Your task to perform on an android device: turn on the 24-hour format for clock Image 0: 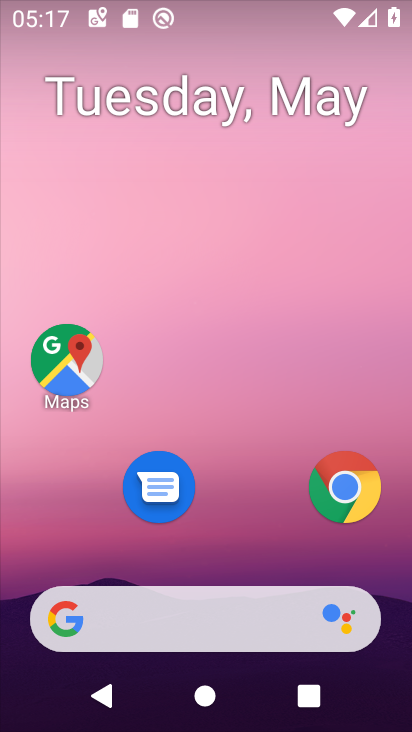
Step 0: drag from (280, 568) to (232, 49)
Your task to perform on an android device: turn on the 24-hour format for clock Image 1: 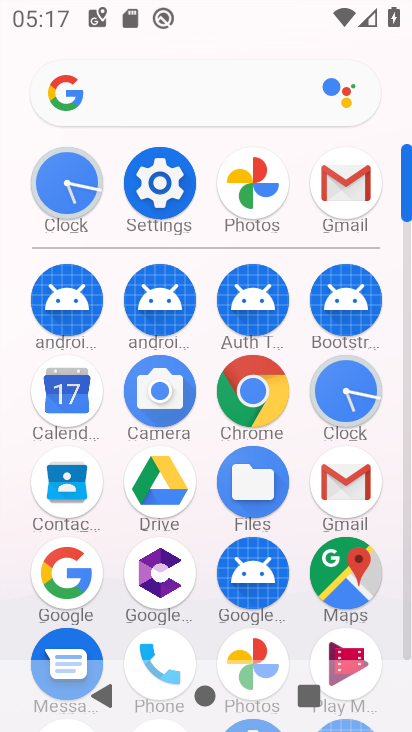
Step 1: click (55, 182)
Your task to perform on an android device: turn on the 24-hour format for clock Image 2: 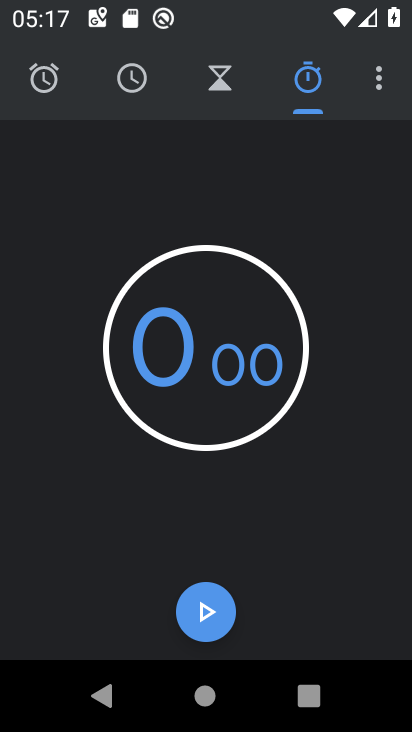
Step 2: click (376, 81)
Your task to perform on an android device: turn on the 24-hour format for clock Image 3: 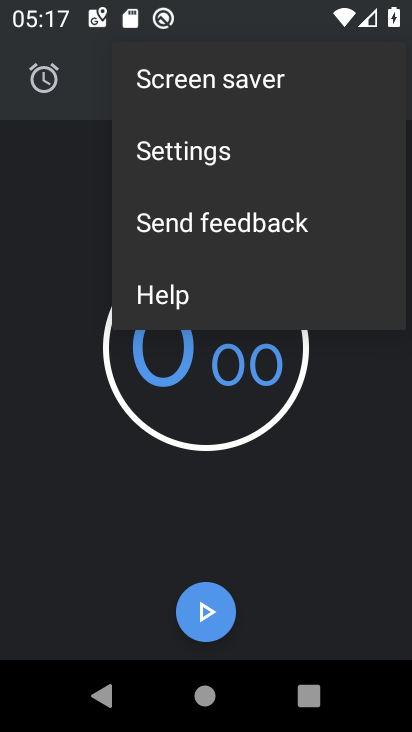
Step 3: click (264, 177)
Your task to perform on an android device: turn on the 24-hour format for clock Image 4: 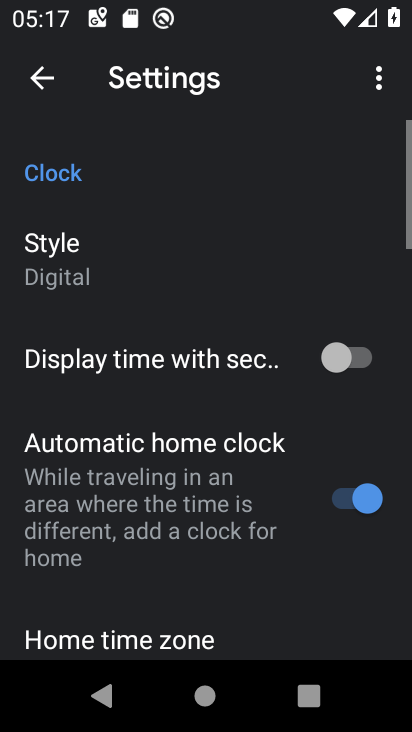
Step 4: drag from (236, 519) to (173, 77)
Your task to perform on an android device: turn on the 24-hour format for clock Image 5: 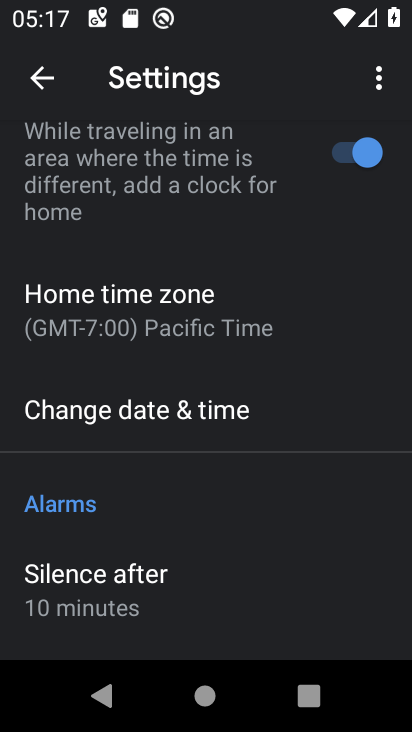
Step 5: drag from (158, 517) to (158, 407)
Your task to perform on an android device: turn on the 24-hour format for clock Image 6: 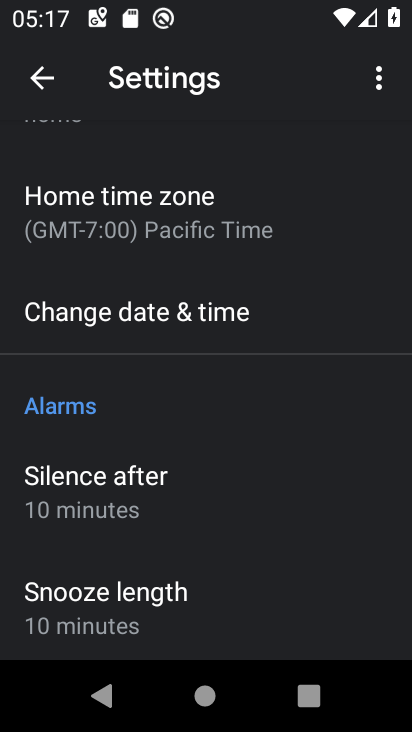
Step 6: click (149, 329)
Your task to perform on an android device: turn on the 24-hour format for clock Image 7: 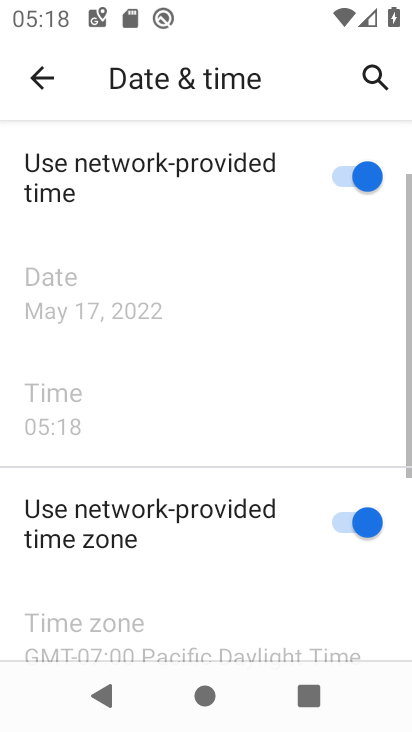
Step 7: drag from (164, 475) to (164, 294)
Your task to perform on an android device: turn on the 24-hour format for clock Image 8: 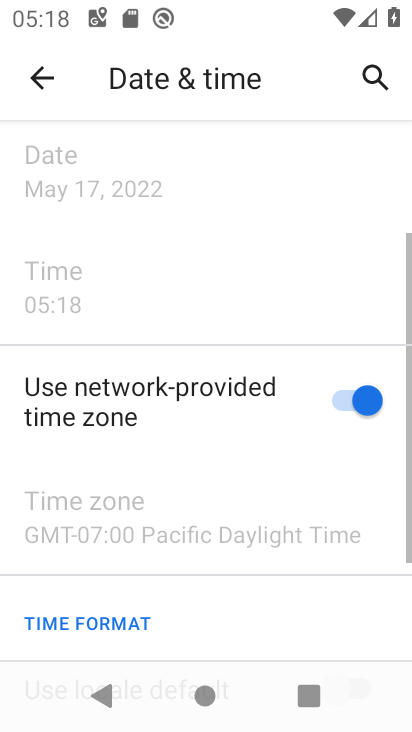
Step 8: click (164, 294)
Your task to perform on an android device: turn on the 24-hour format for clock Image 9: 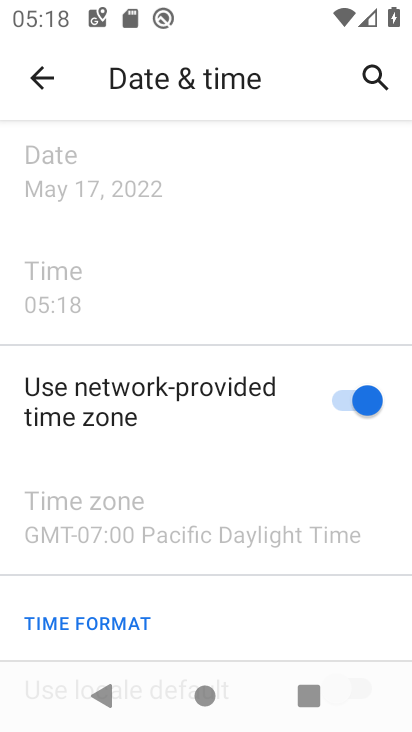
Step 9: task complete